Your task to perform on an android device: star an email in the gmail app Image 0: 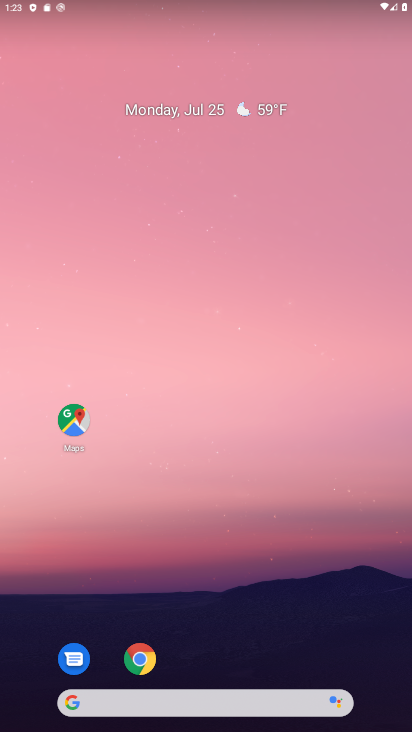
Step 0: drag from (273, 651) to (316, 0)
Your task to perform on an android device: star an email in the gmail app Image 1: 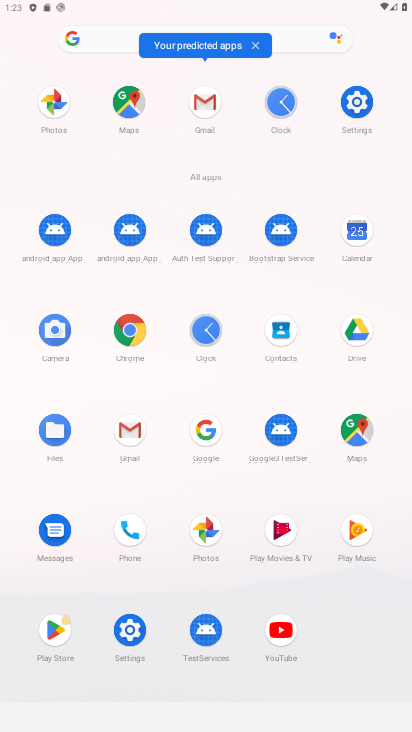
Step 1: click (205, 109)
Your task to perform on an android device: star an email in the gmail app Image 2: 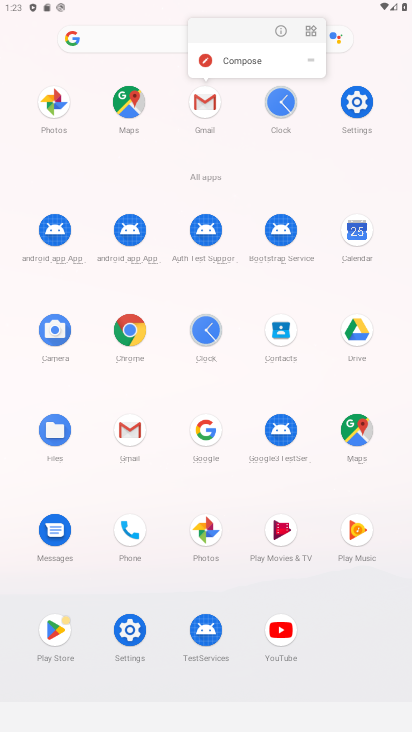
Step 2: click (205, 109)
Your task to perform on an android device: star an email in the gmail app Image 3: 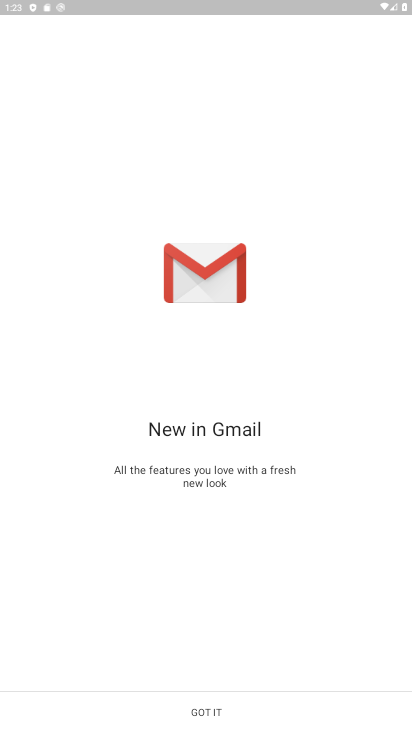
Step 3: click (207, 705)
Your task to perform on an android device: star an email in the gmail app Image 4: 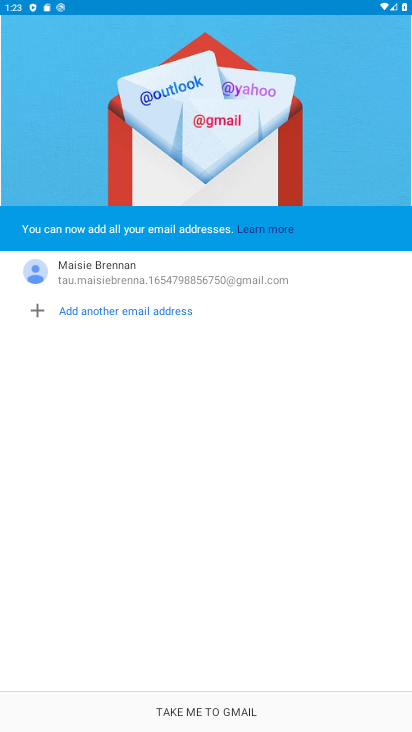
Step 4: click (207, 705)
Your task to perform on an android device: star an email in the gmail app Image 5: 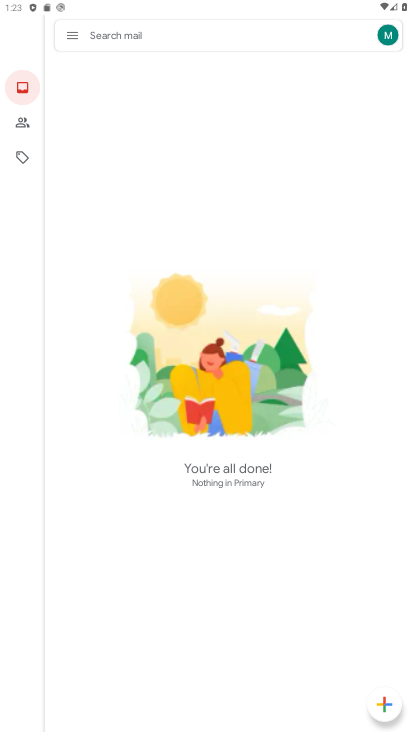
Step 5: click (71, 31)
Your task to perform on an android device: star an email in the gmail app Image 6: 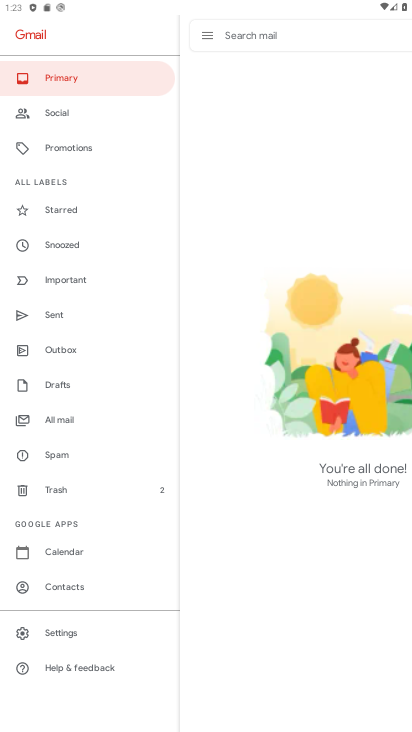
Step 6: click (52, 414)
Your task to perform on an android device: star an email in the gmail app Image 7: 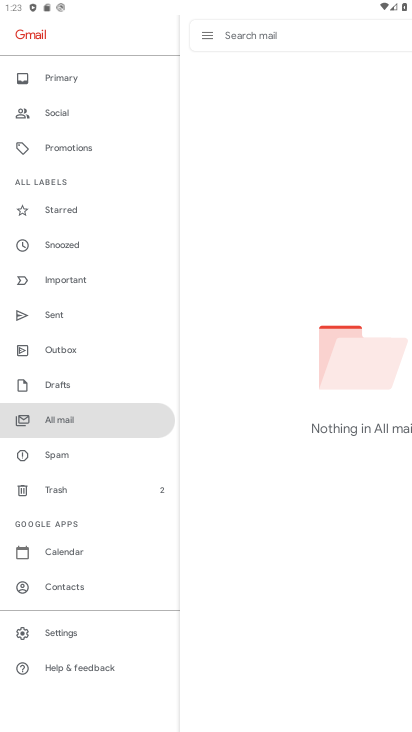
Step 7: task complete